Your task to perform on an android device: open a new tab in the chrome app Image 0: 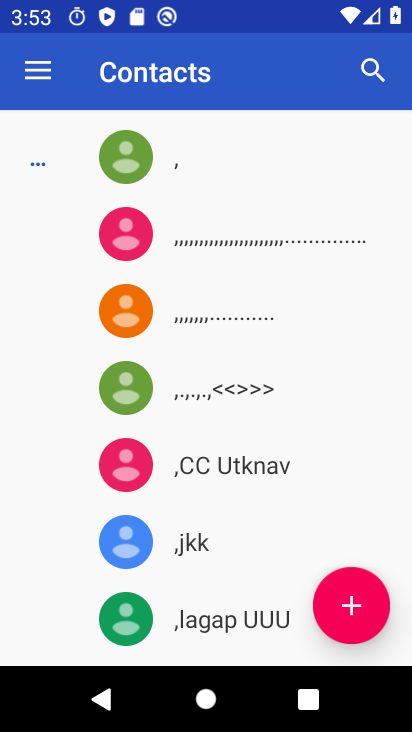
Step 0: press back button
Your task to perform on an android device: open a new tab in the chrome app Image 1: 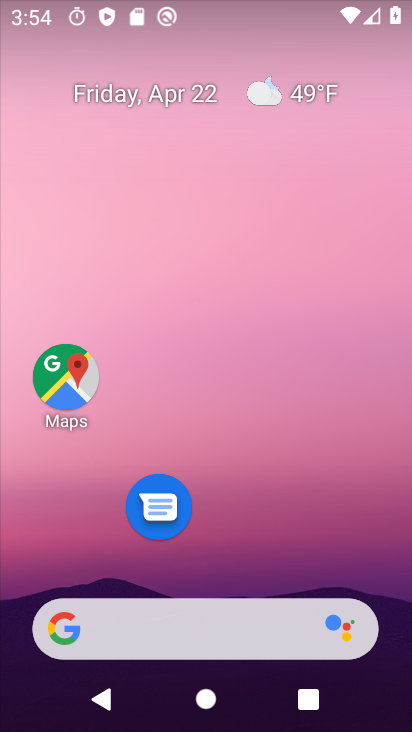
Step 1: drag from (260, 531) to (304, 94)
Your task to perform on an android device: open a new tab in the chrome app Image 2: 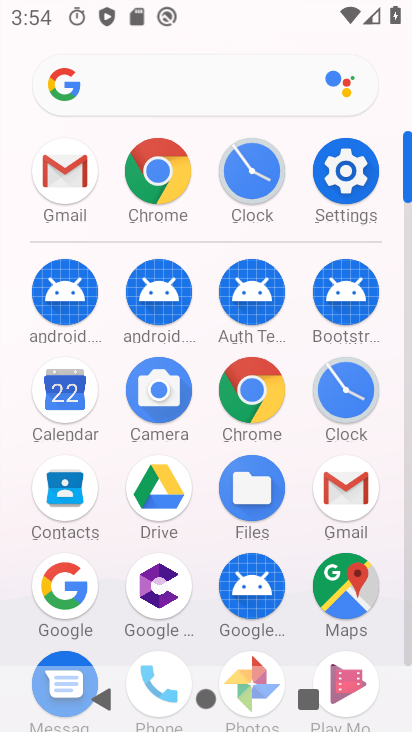
Step 2: click (152, 181)
Your task to perform on an android device: open a new tab in the chrome app Image 3: 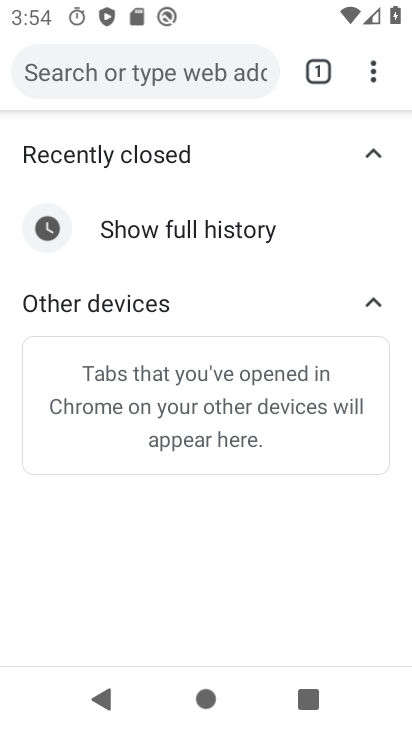
Step 3: task complete